Your task to perform on an android device: toggle notifications settings in the gmail app Image 0: 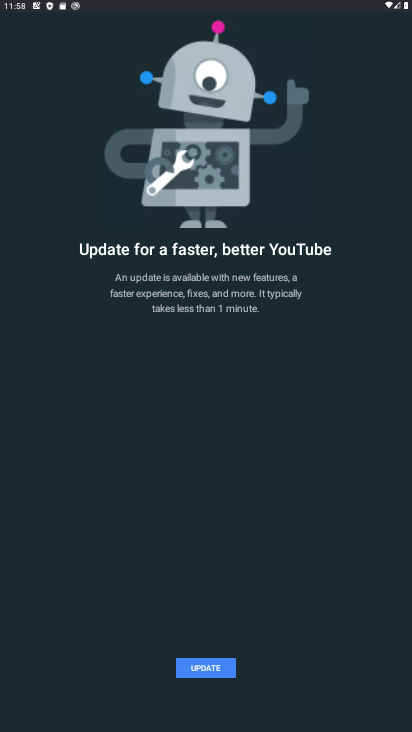
Step 0: press home button
Your task to perform on an android device: toggle notifications settings in the gmail app Image 1: 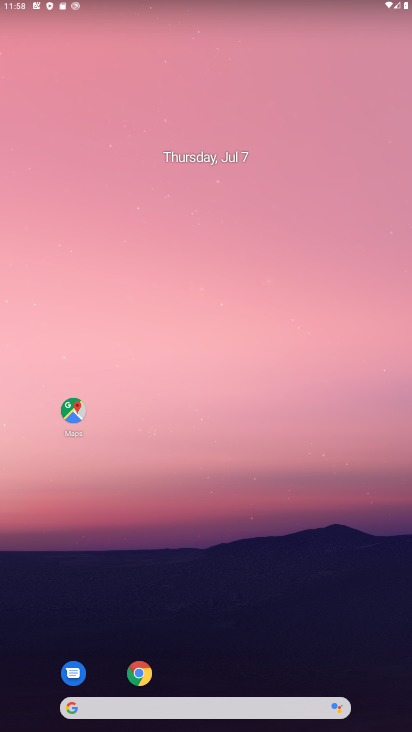
Step 1: drag from (269, 652) to (220, 64)
Your task to perform on an android device: toggle notifications settings in the gmail app Image 2: 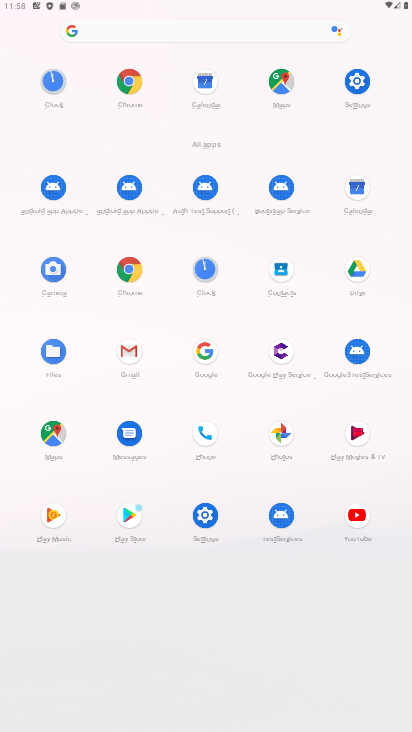
Step 2: click (129, 351)
Your task to perform on an android device: toggle notifications settings in the gmail app Image 3: 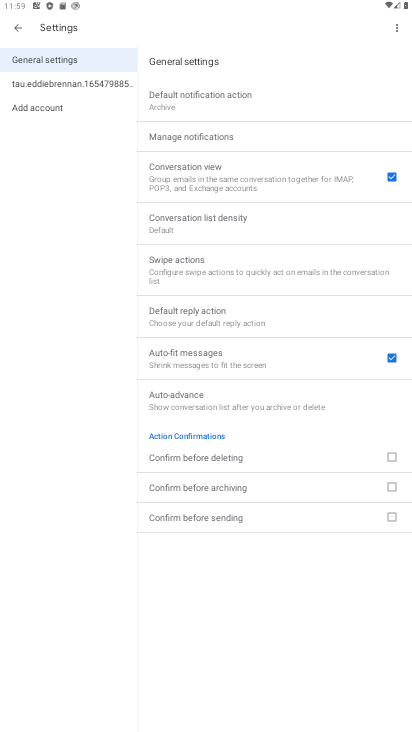
Step 3: click (202, 137)
Your task to perform on an android device: toggle notifications settings in the gmail app Image 4: 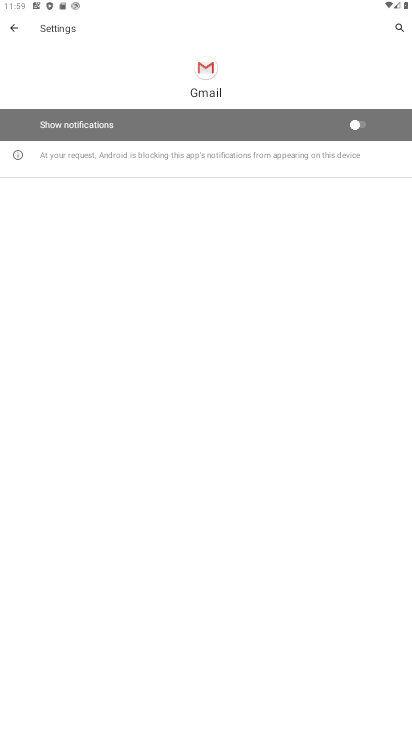
Step 4: click (361, 122)
Your task to perform on an android device: toggle notifications settings in the gmail app Image 5: 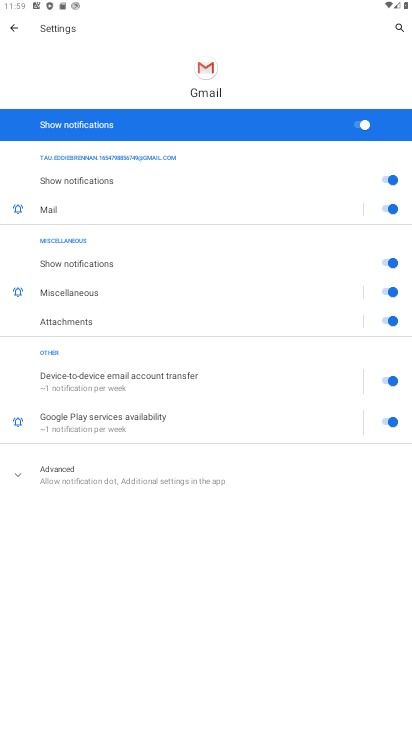
Step 5: task complete